Your task to perform on an android device: Search for sushi restaurants on Maps Image 0: 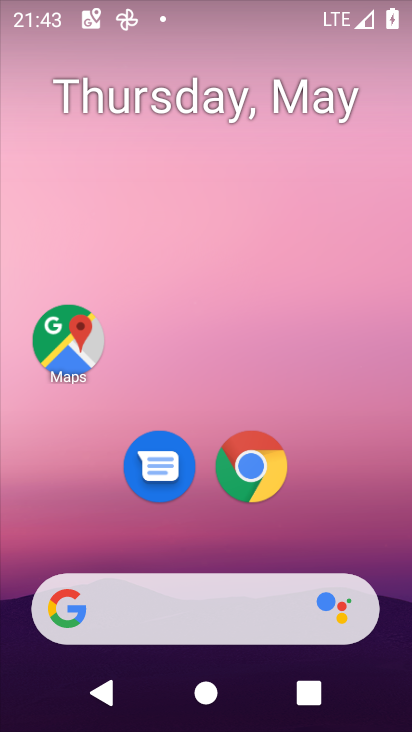
Step 0: click (47, 335)
Your task to perform on an android device: Search for sushi restaurants on Maps Image 1: 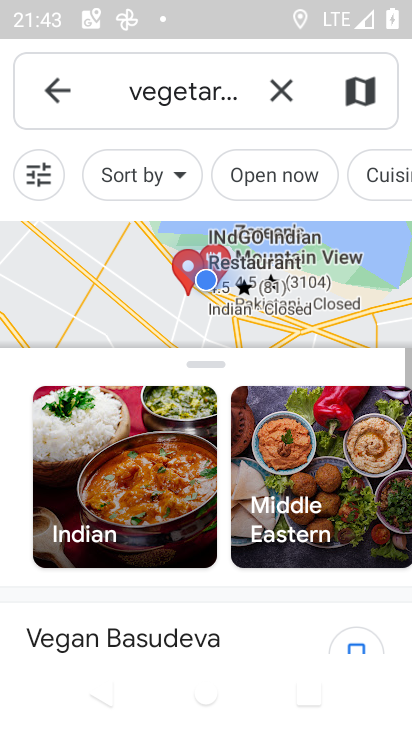
Step 1: click (289, 84)
Your task to perform on an android device: Search for sushi restaurants on Maps Image 2: 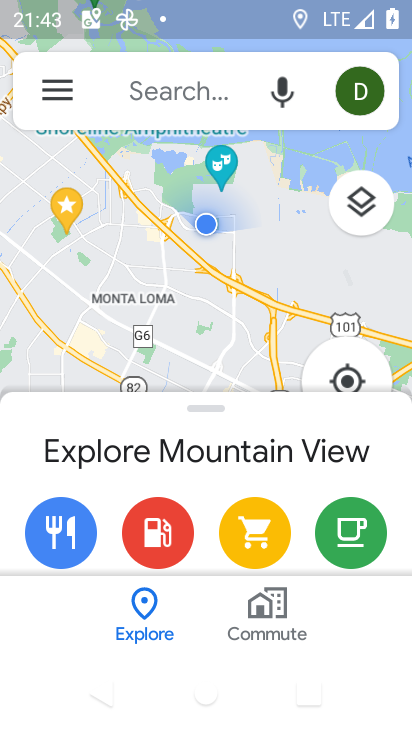
Step 2: click (227, 93)
Your task to perform on an android device: Search for sushi restaurants on Maps Image 3: 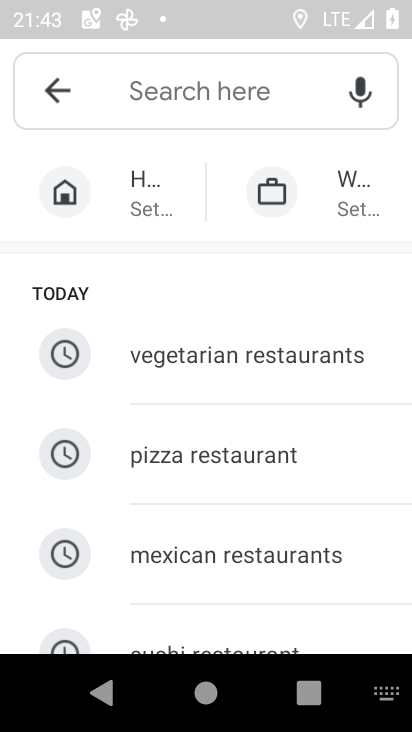
Step 3: click (218, 636)
Your task to perform on an android device: Search for sushi restaurants on Maps Image 4: 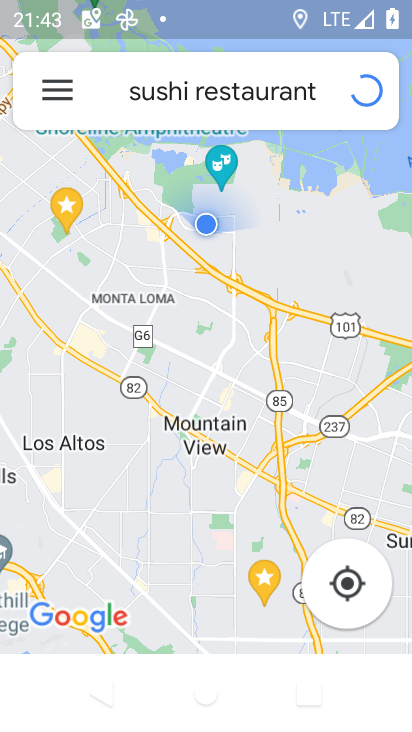
Step 4: task complete